Your task to perform on an android device: Open Reddit.com Image 0: 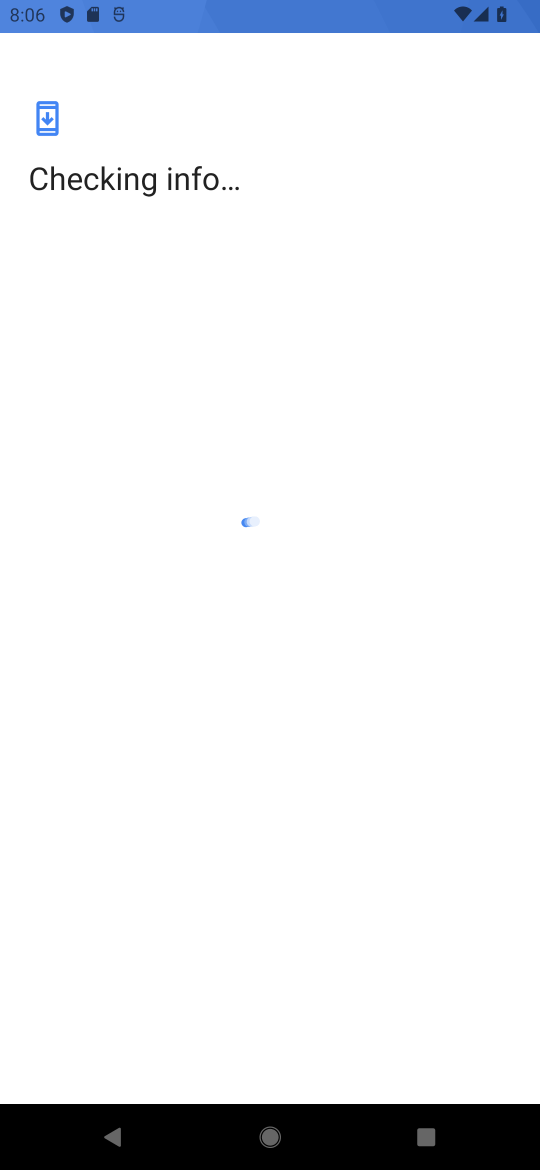
Step 0: press back button
Your task to perform on an android device: Open Reddit.com Image 1: 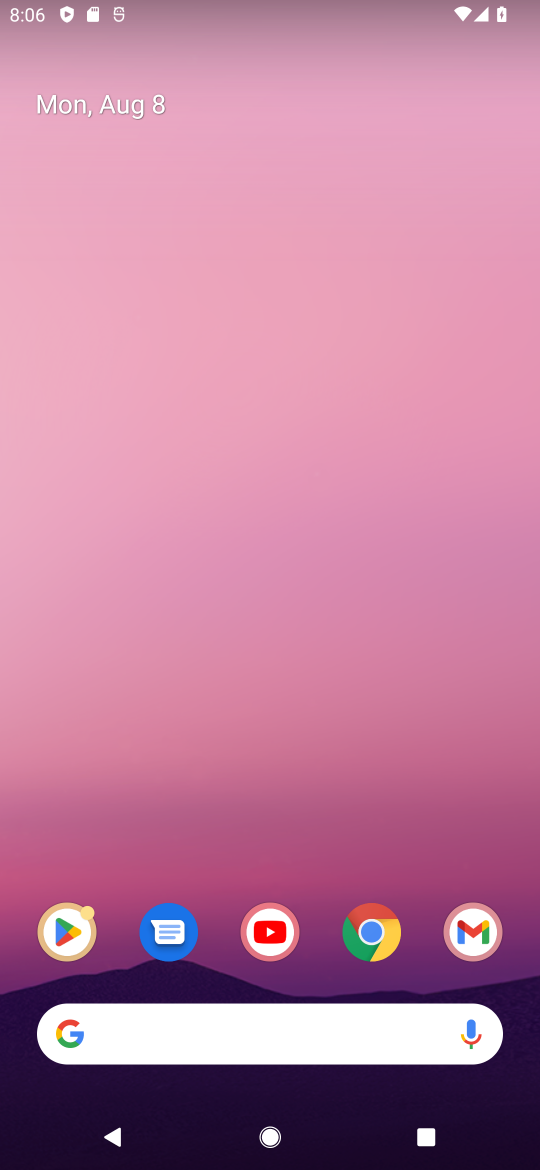
Step 1: click (370, 919)
Your task to perform on an android device: Open Reddit.com Image 2: 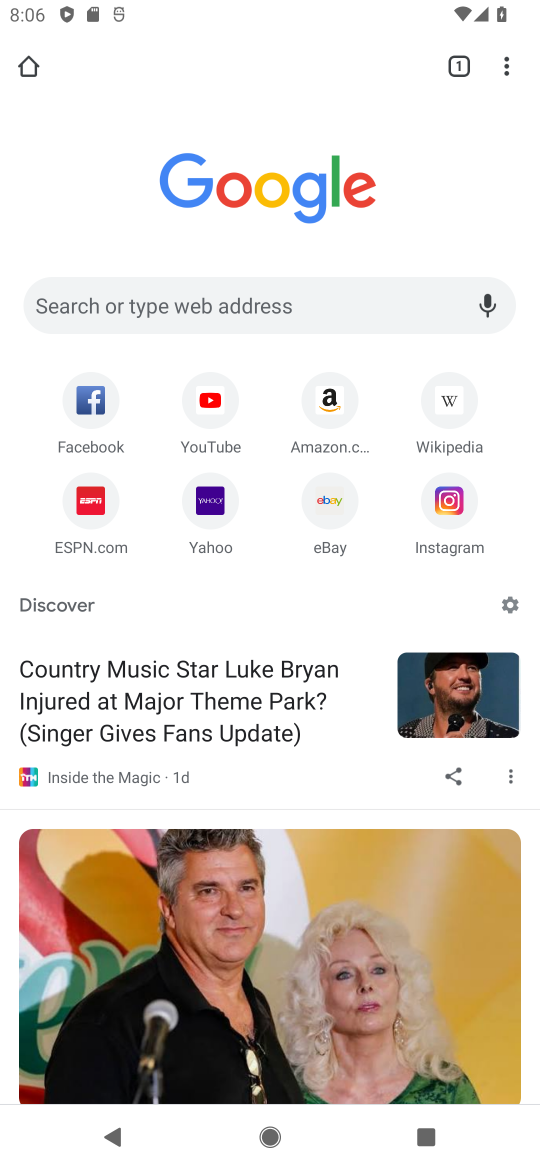
Step 2: click (228, 299)
Your task to perform on an android device: Open Reddit.com Image 3: 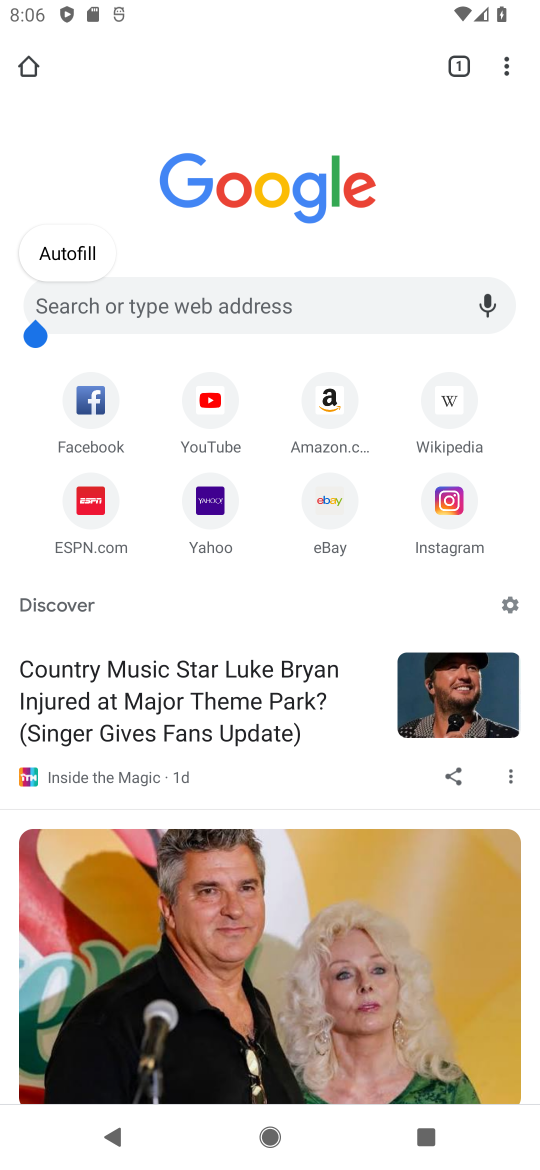
Step 3: type "reddit"
Your task to perform on an android device: Open Reddit.com Image 4: 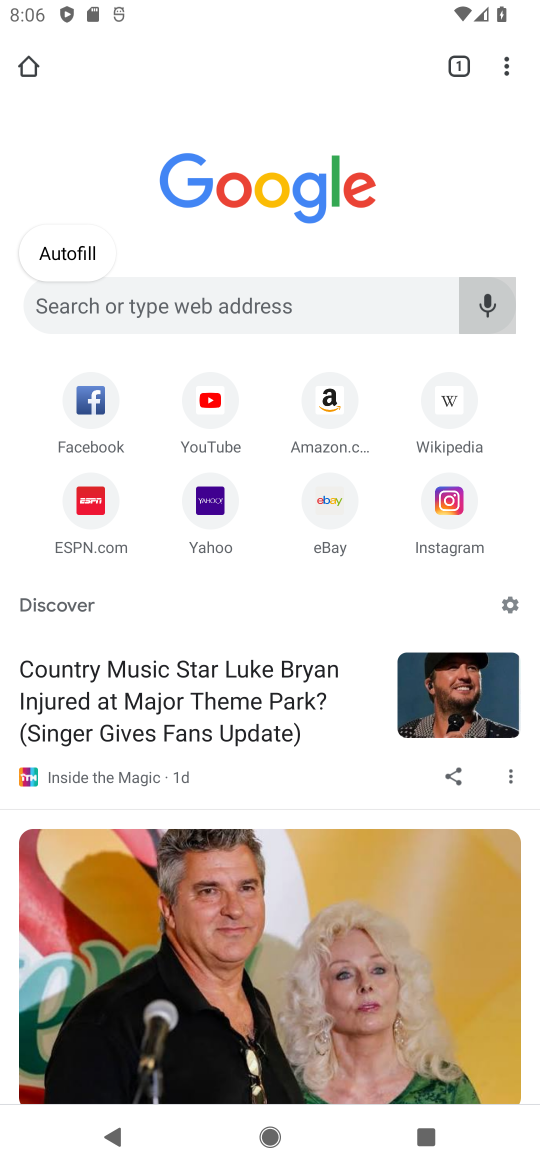
Step 4: click (215, 310)
Your task to perform on an android device: Open Reddit.com Image 5: 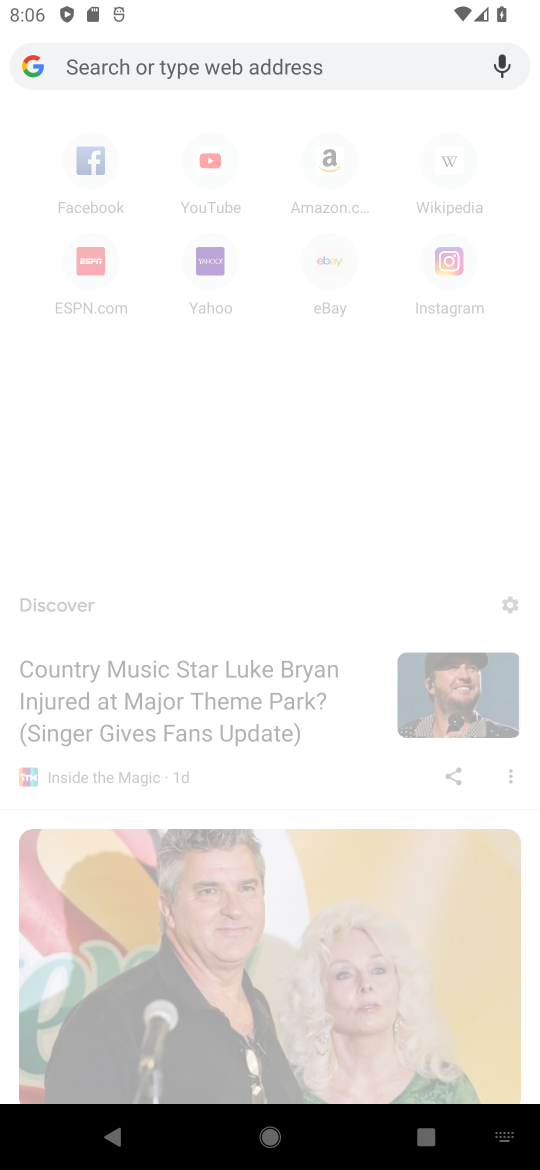
Step 5: click (131, 52)
Your task to perform on an android device: Open Reddit.com Image 6: 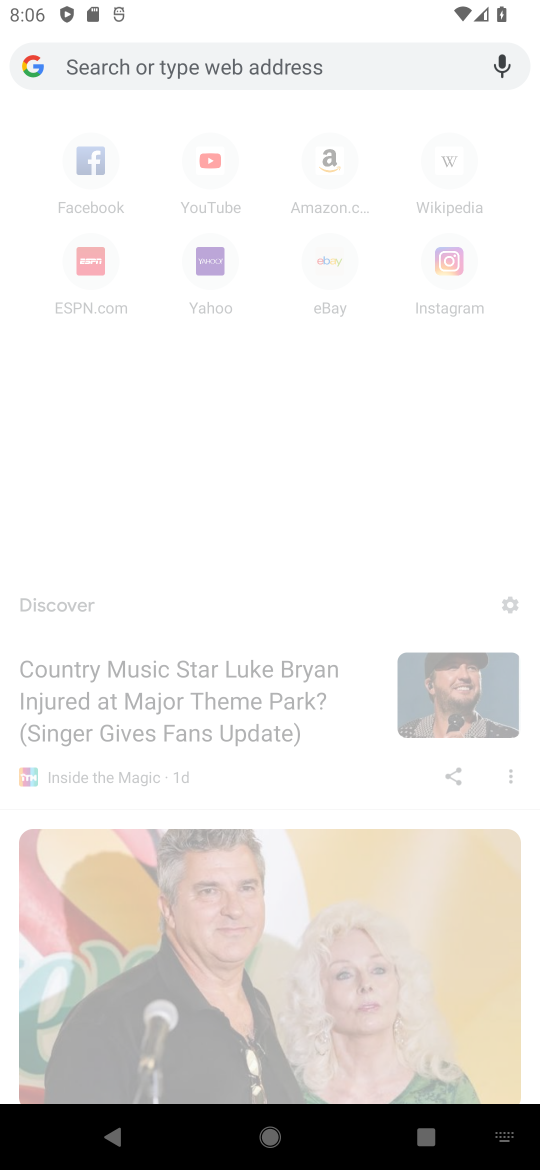
Step 6: type "reddi"
Your task to perform on an android device: Open Reddit.com Image 7: 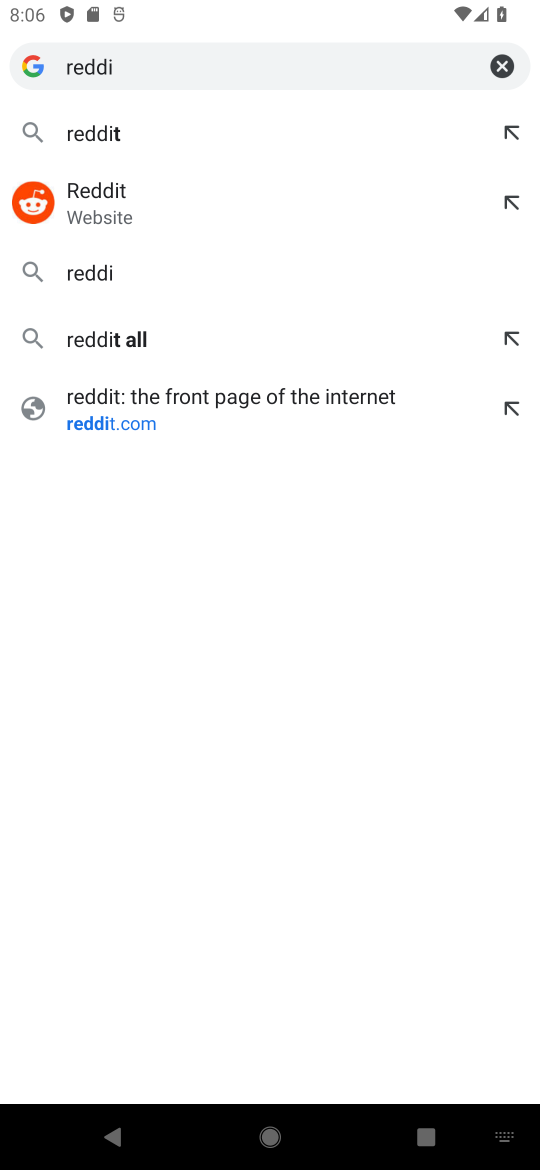
Step 7: click (141, 210)
Your task to perform on an android device: Open Reddit.com Image 8: 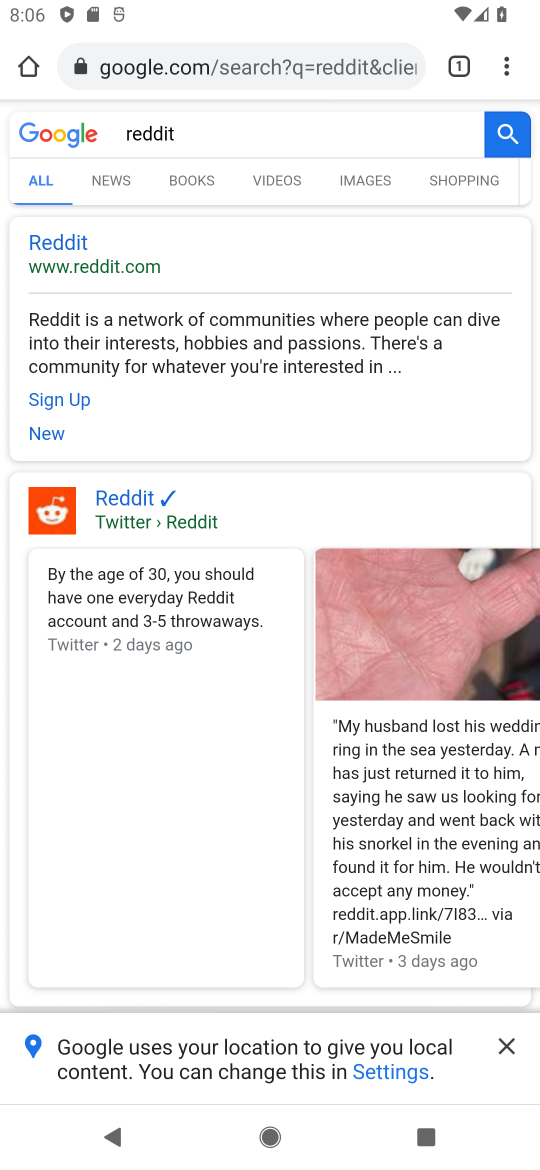
Step 8: task complete